Your task to perform on an android device: Open location settings Image 0: 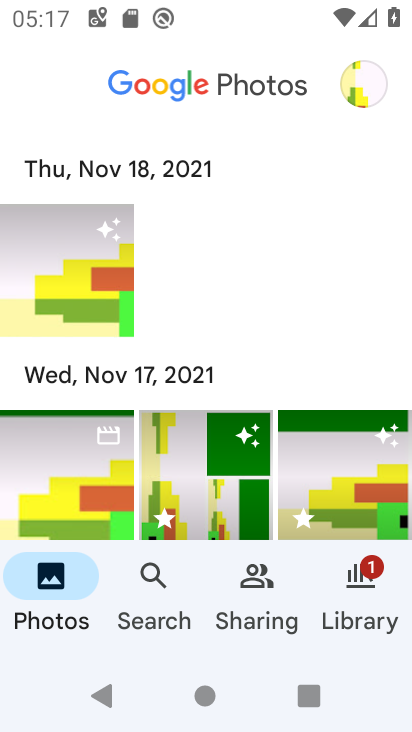
Step 0: press home button
Your task to perform on an android device: Open location settings Image 1: 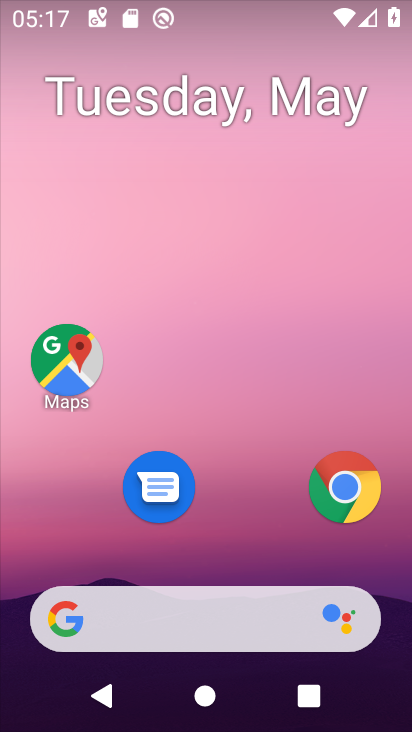
Step 1: drag from (273, 552) to (252, 35)
Your task to perform on an android device: Open location settings Image 2: 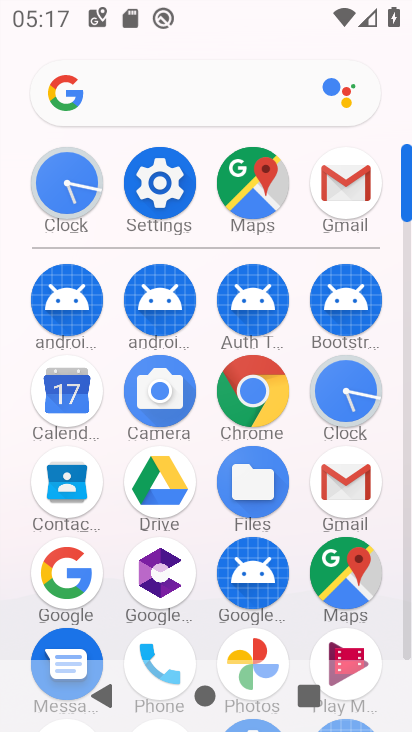
Step 2: click (170, 197)
Your task to perform on an android device: Open location settings Image 3: 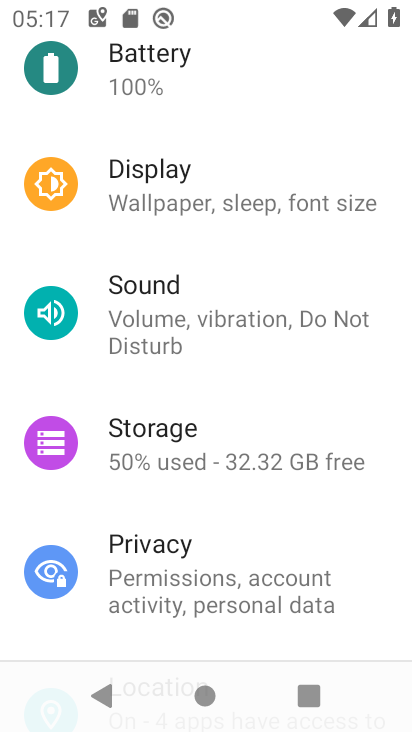
Step 3: drag from (186, 569) to (171, 228)
Your task to perform on an android device: Open location settings Image 4: 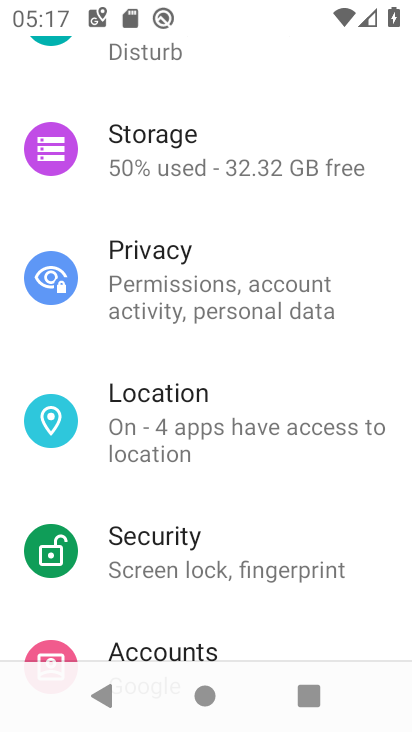
Step 4: click (206, 441)
Your task to perform on an android device: Open location settings Image 5: 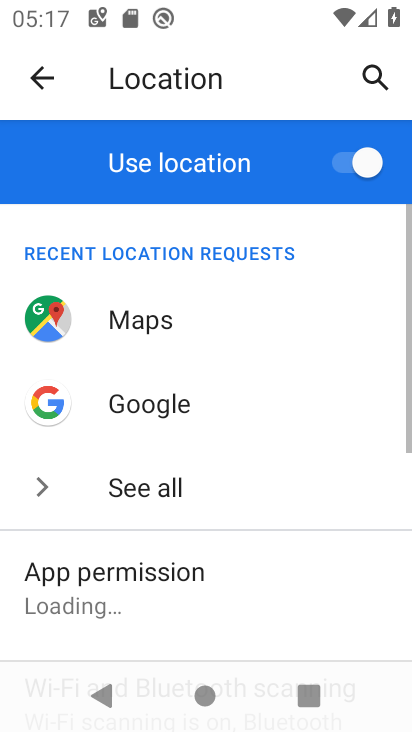
Step 5: task complete